Your task to perform on an android device: Go to Wikipedia Image 0: 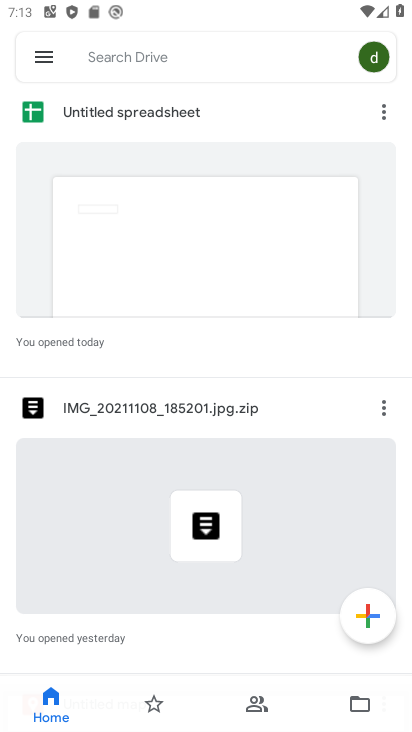
Step 0: press home button
Your task to perform on an android device: Go to Wikipedia Image 1: 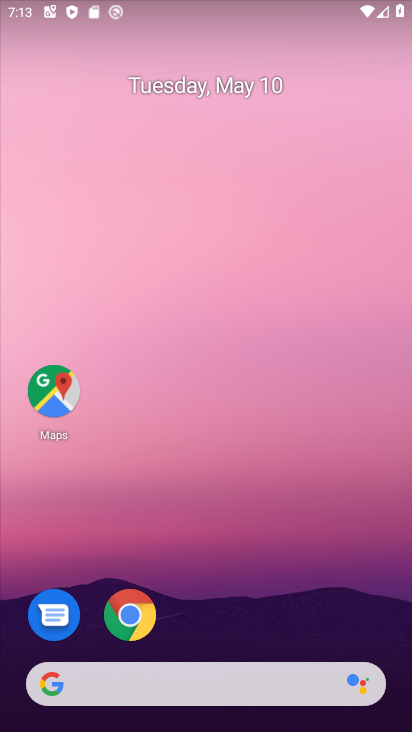
Step 1: click (133, 613)
Your task to perform on an android device: Go to Wikipedia Image 2: 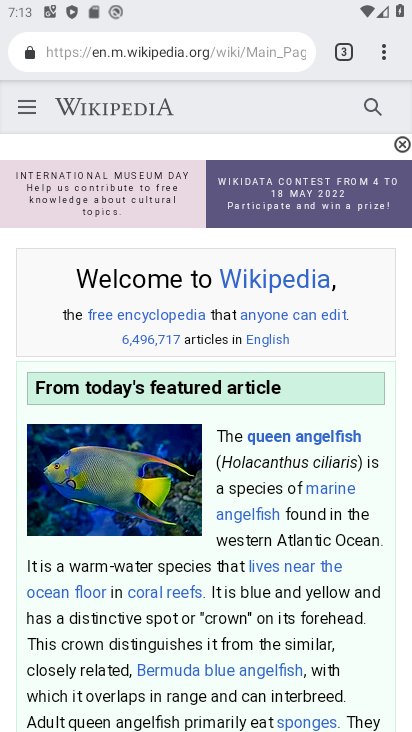
Step 2: task complete